Your task to perform on an android device: What is the news today? Image 0: 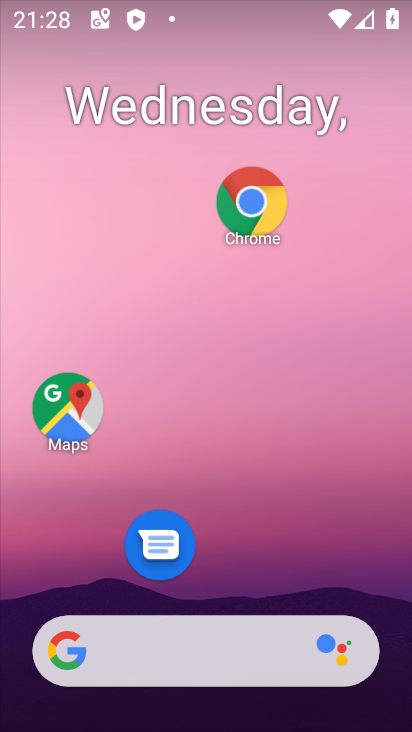
Step 0: click (205, 669)
Your task to perform on an android device: What is the news today? Image 1: 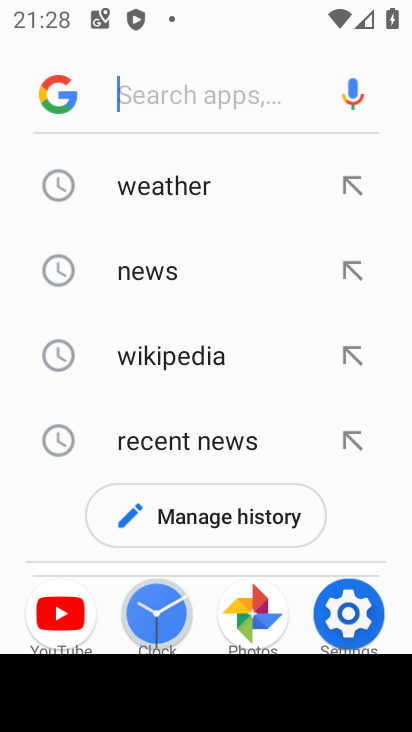
Step 1: click (71, 267)
Your task to perform on an android device: What is the news today? Image 2: 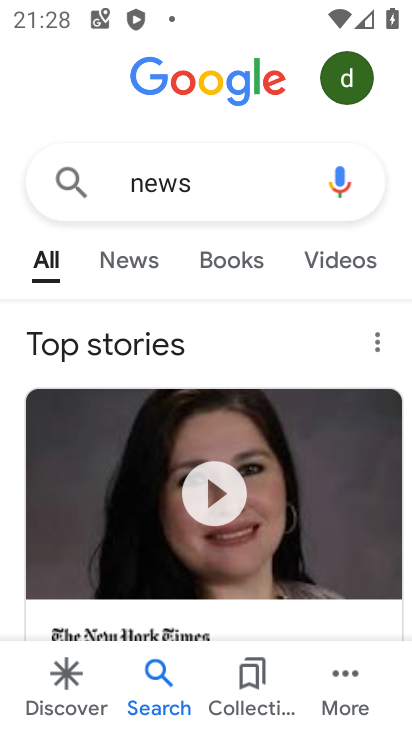
Step 2: task complete